Your task to perform on an android device: Go to Yahoo.com Image 0: 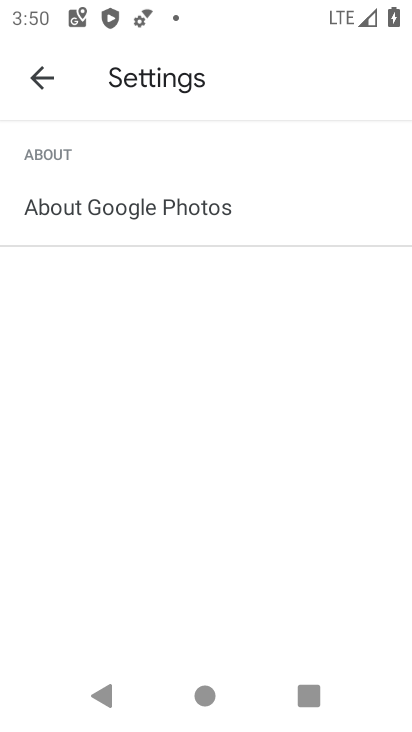
Step 0: press home button
Your task to perform on an android device: Go to Yahoo.com Image 1: 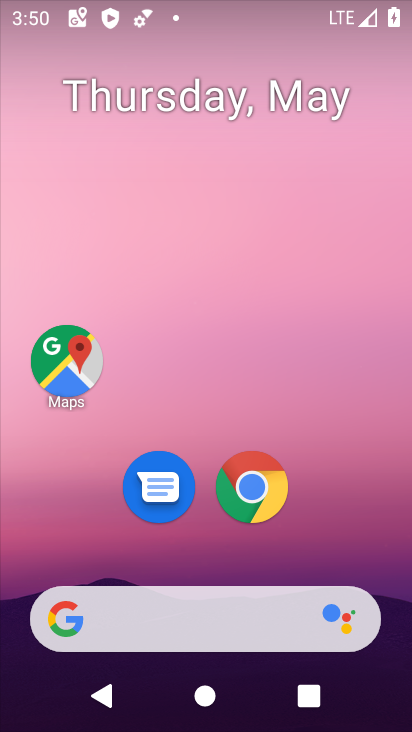
Step 1: drag from (214, 627) to (250, 178)
Your task to perform on an android device: Go to Yahoo.com Image 2: 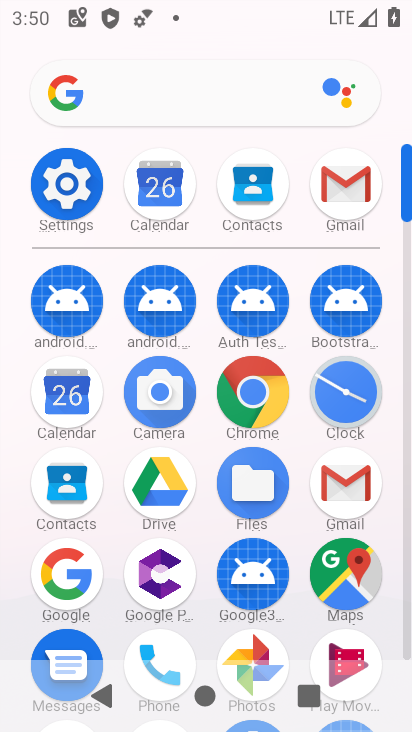
Step 2: click (259, 397)
Your task to perform on an android device: Go to Yahoo.com Image 3: 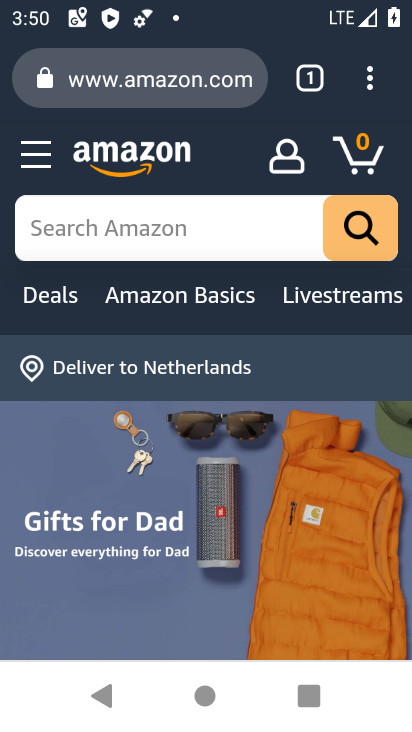
Step 3: click (210, 76)
Your task to perform on an android device: Go to Yahoo.com Image 4: 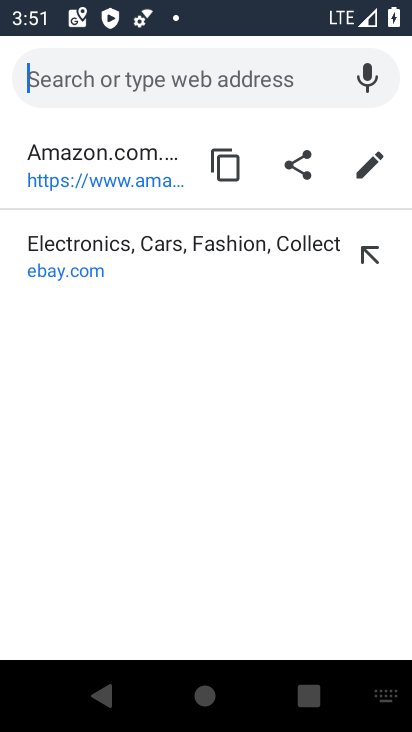
Step 4: type "yahoo"
Your task to perform on an android device: Go to Yahoo.com Image 5: 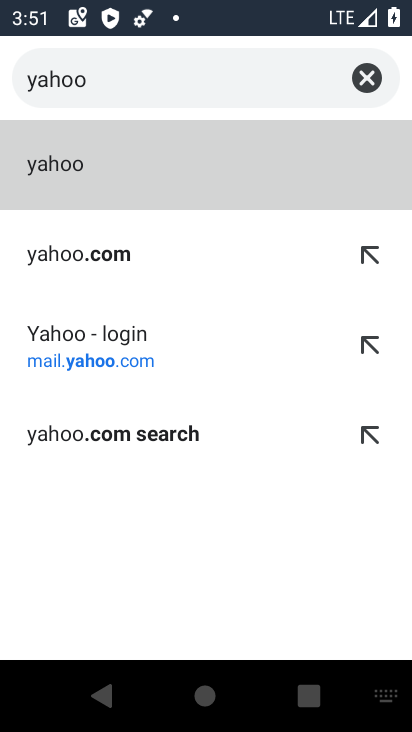
Step 5: click (151, 349)
Your task to perform on an android device: Go to Yahoo.com Image 6: 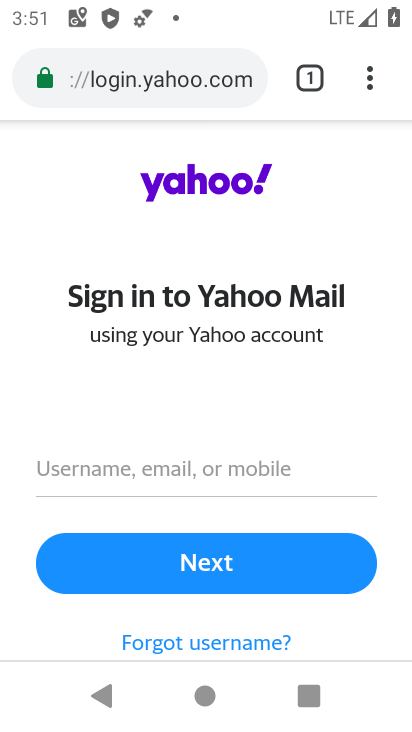
Step 6: task complete